Your task to perform on an android device: Go to Google Image 0: 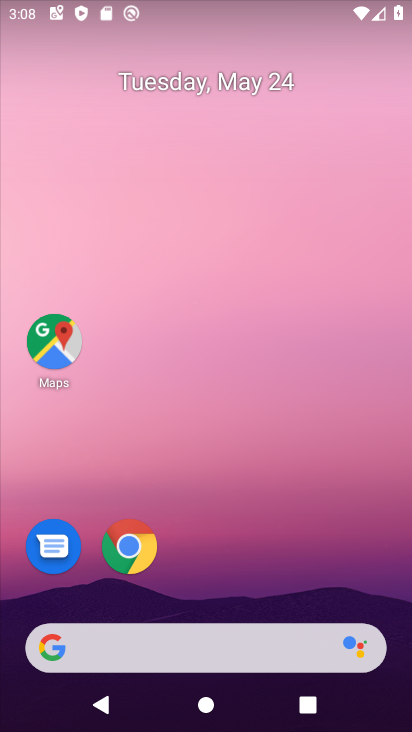
Step 0: drag from (297, 573) to (213, 26)
Your task to perform on an android device: Go to Google Image 1: 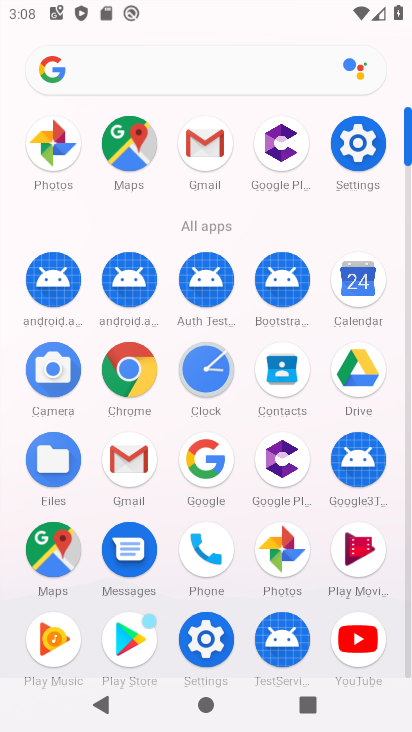
Step 1: click (216, 473)
Your task to perform on an android device: Go to Google Image 2: 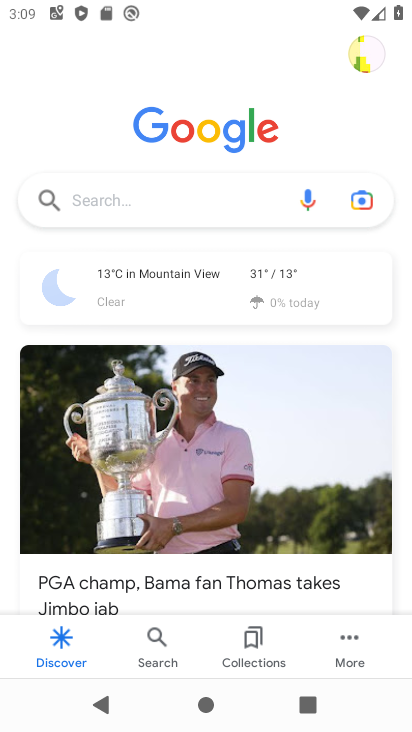
Step 2: task complete